Your task to perform on an android device: Open Chrome and go to settings Image 0: 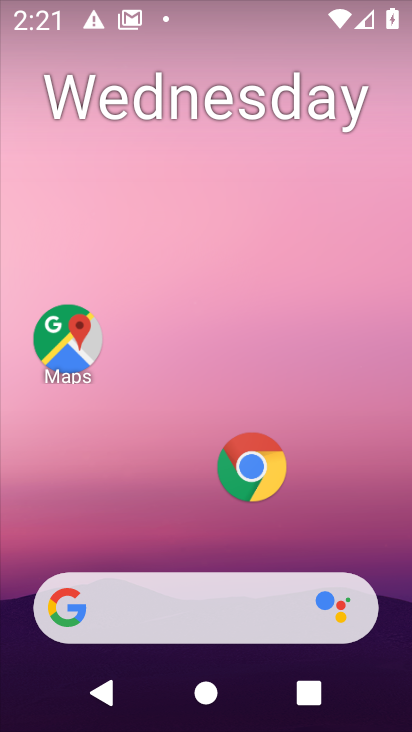
Step 0: click (181, 501)
Your task to perform on an android device: Open Chrome and go to settings Image 1: 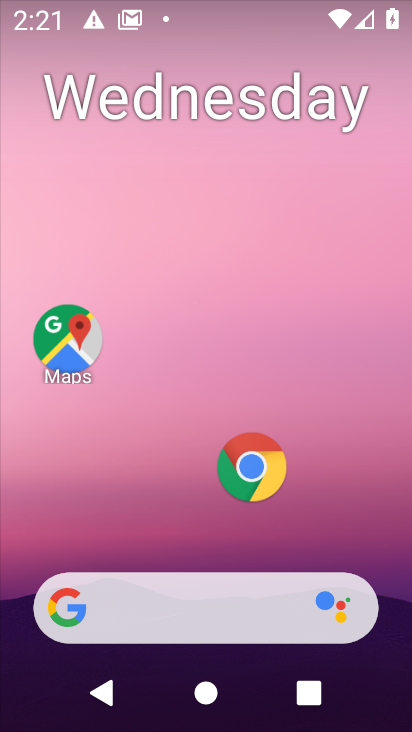
Step 1: click (250, 462)
Your task to perform on an android device: Open Chrome and go to settings Image 2: 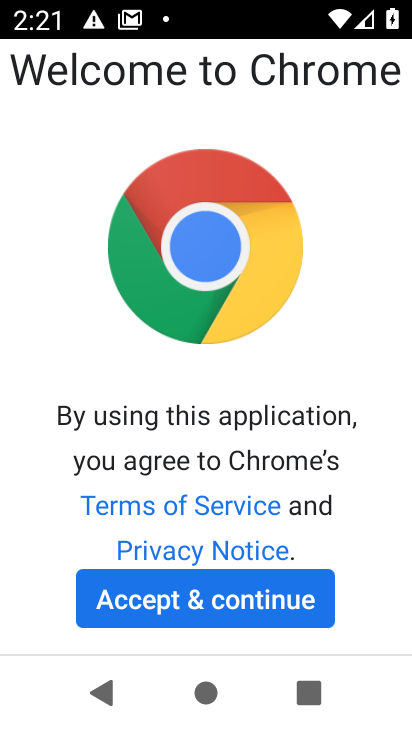
Step 2: click (196, 588)
Your task to perform on an android device: Open Chrome and go to settings Image 3: 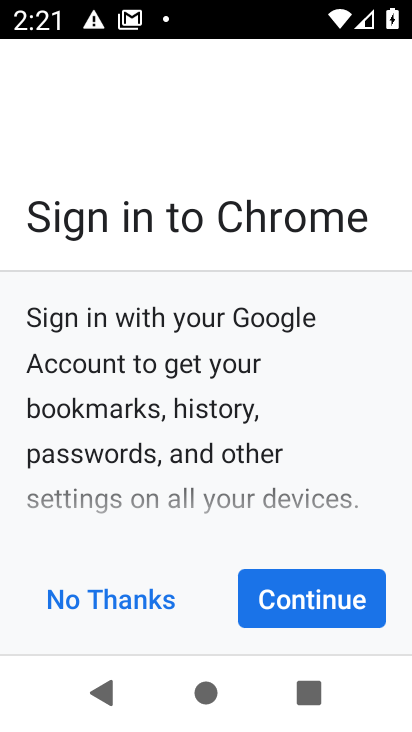
Step 3: click (293, 583)
Your task to perform on an android device: Open Chrome and go to settings Image 4: 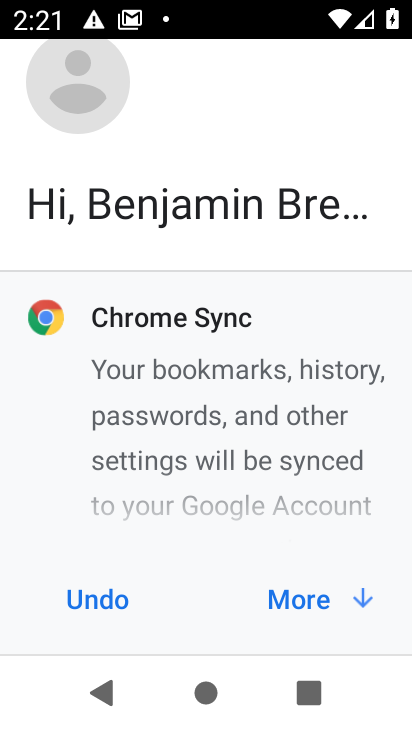
Step 4: click (298, 592)
Your task to perform on an android device: Open Chrome and go to settings Image 5: 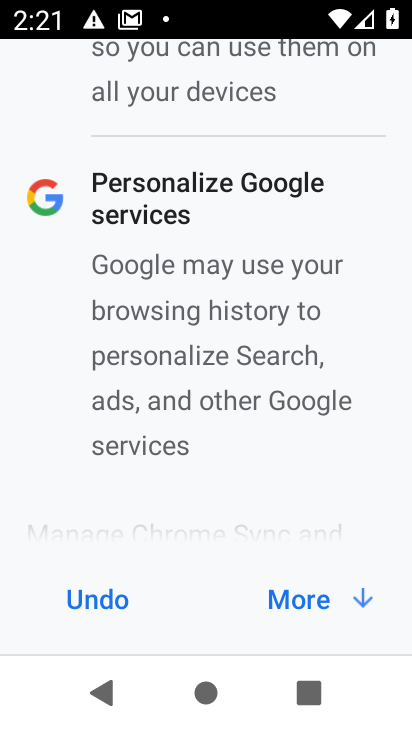
Step 5: click (298, 592)
Your task to perform on an android device: Open Chrome and go to settings Image 6: 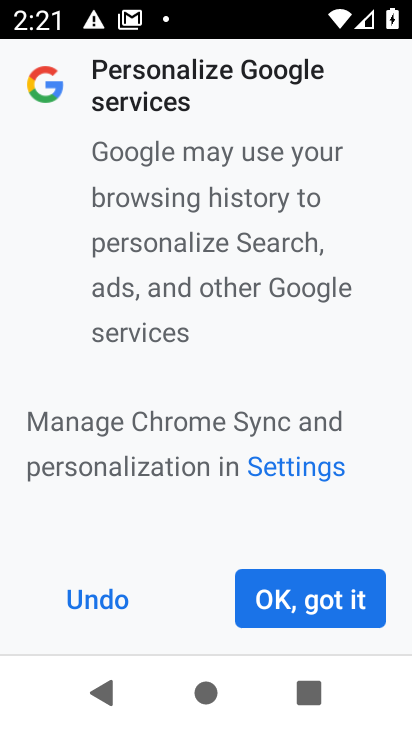
Step 6: click (298, 592)
Your task to perform on an android device: Open Chrome and go to settings Image 7: 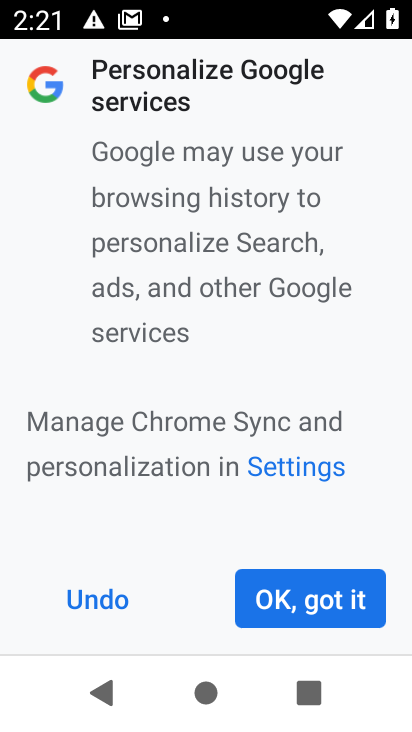
Step 7: click (298, 592)
Your task to perform on an android device: Open Chrome and go to settings Image 8: 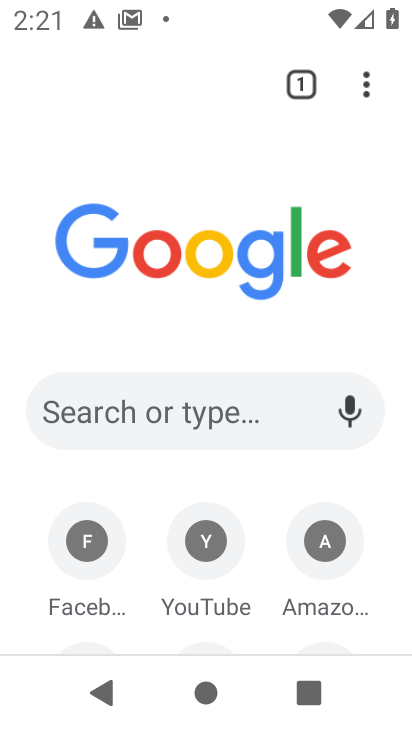
Step 8: task complete